Your task to perform on an android device: Open the Play Movies app and select the watchlist tab. Image 0: 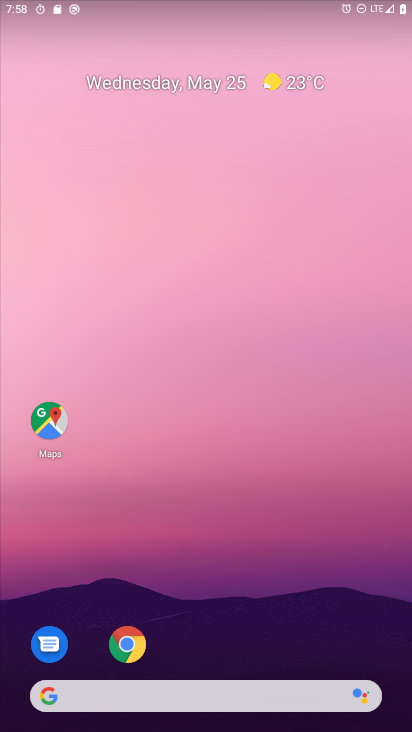
Step 0: drag from (341, 617) to (256, 8)
Your task to perform on an android device: Open the Play Movies app and select the watchlist tab. Image 1: 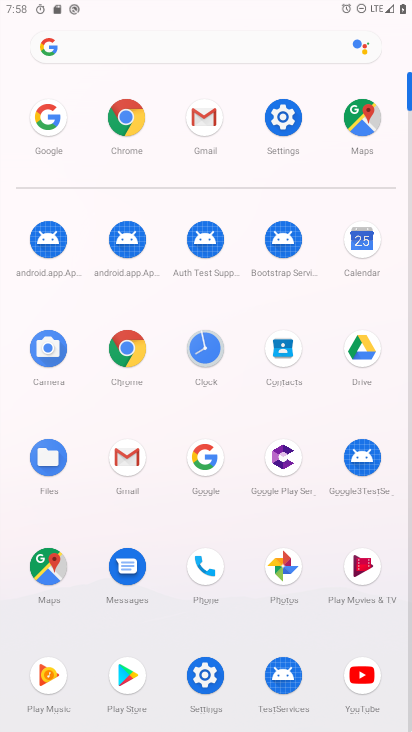
Step 1: click (357, 556)
Your task to perform on an android device: Open the Play Movies app and select the watchlist tab. Image 2: 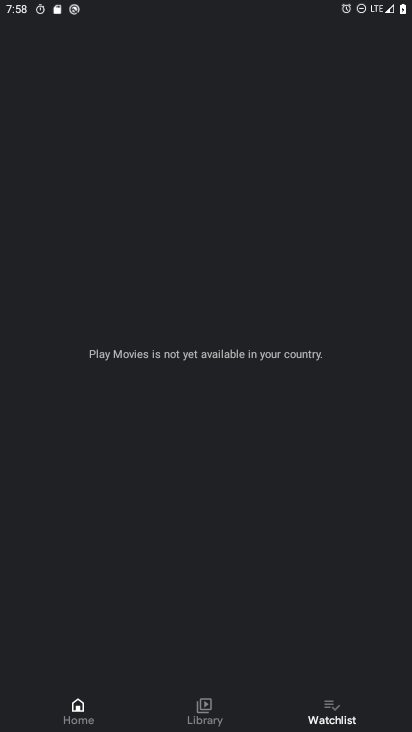
Step 2: task complete